Your task to perform on an android device: open app "Speedtest by Ookla" (install if not already installed), go to login, and select forgot password Image 0: 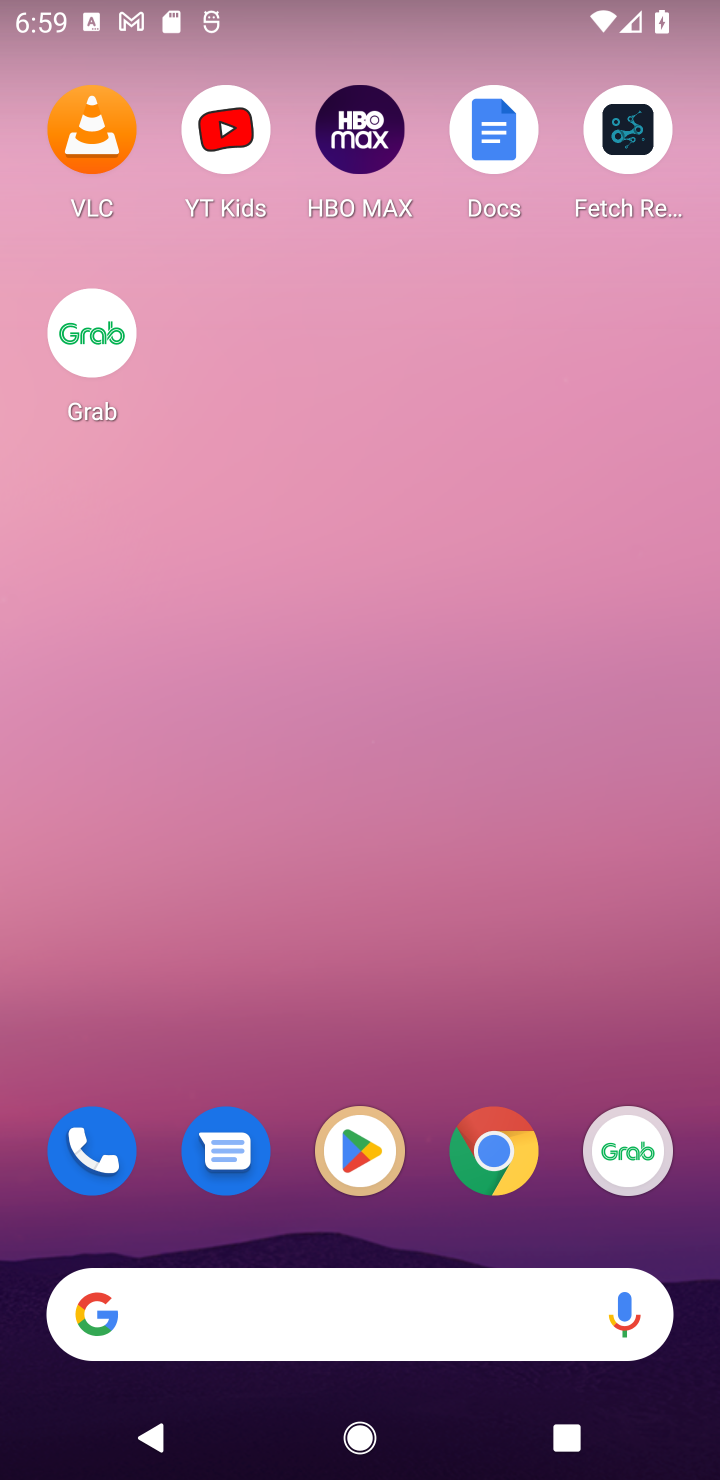
Step 0: press home button
Your task to perform on an android device: open app "Speedtest by Ookla" (install if not already installed), go to login, and select forgot password Image 1: 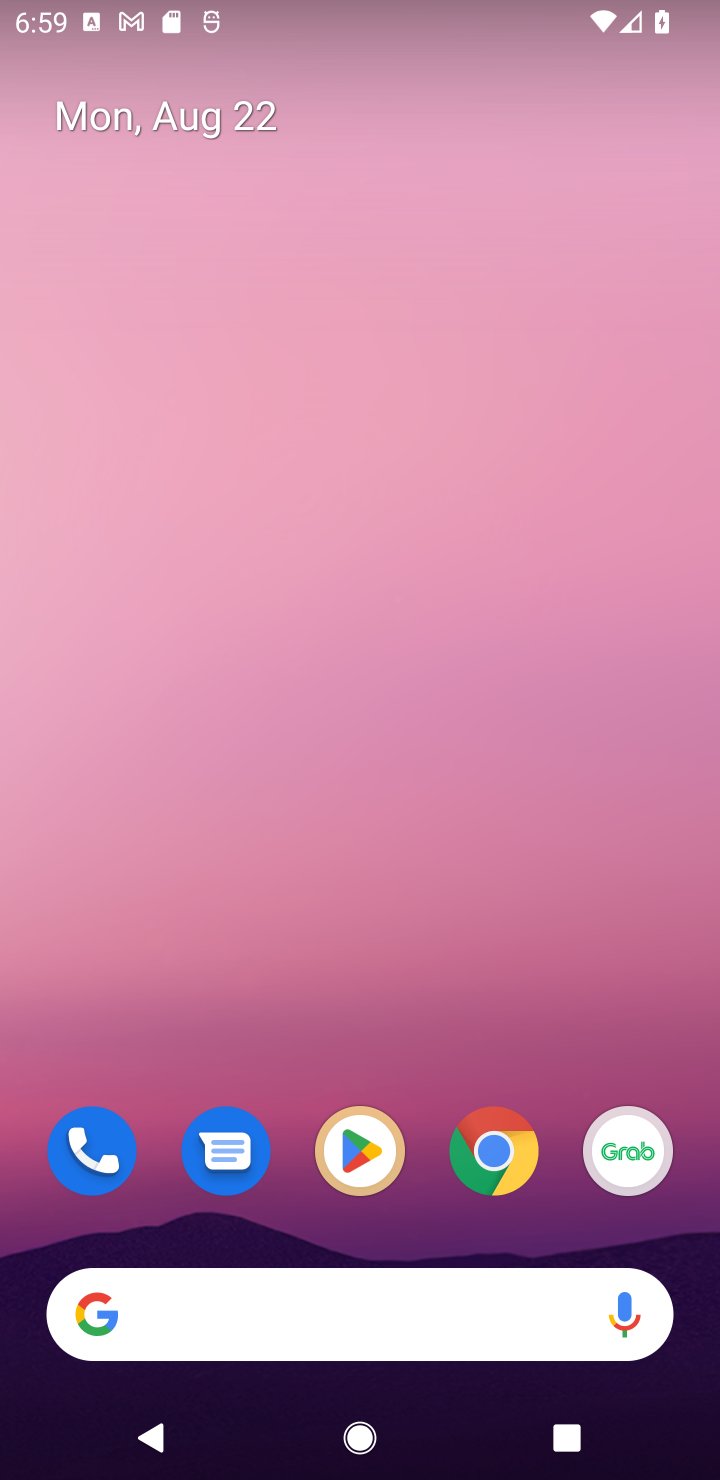
Step 1: click (377, 1145)
Your task to perform on an android device: open app "Speedtest by Ookla" (install if not already installed), go to login, and select forgot password Image 2: 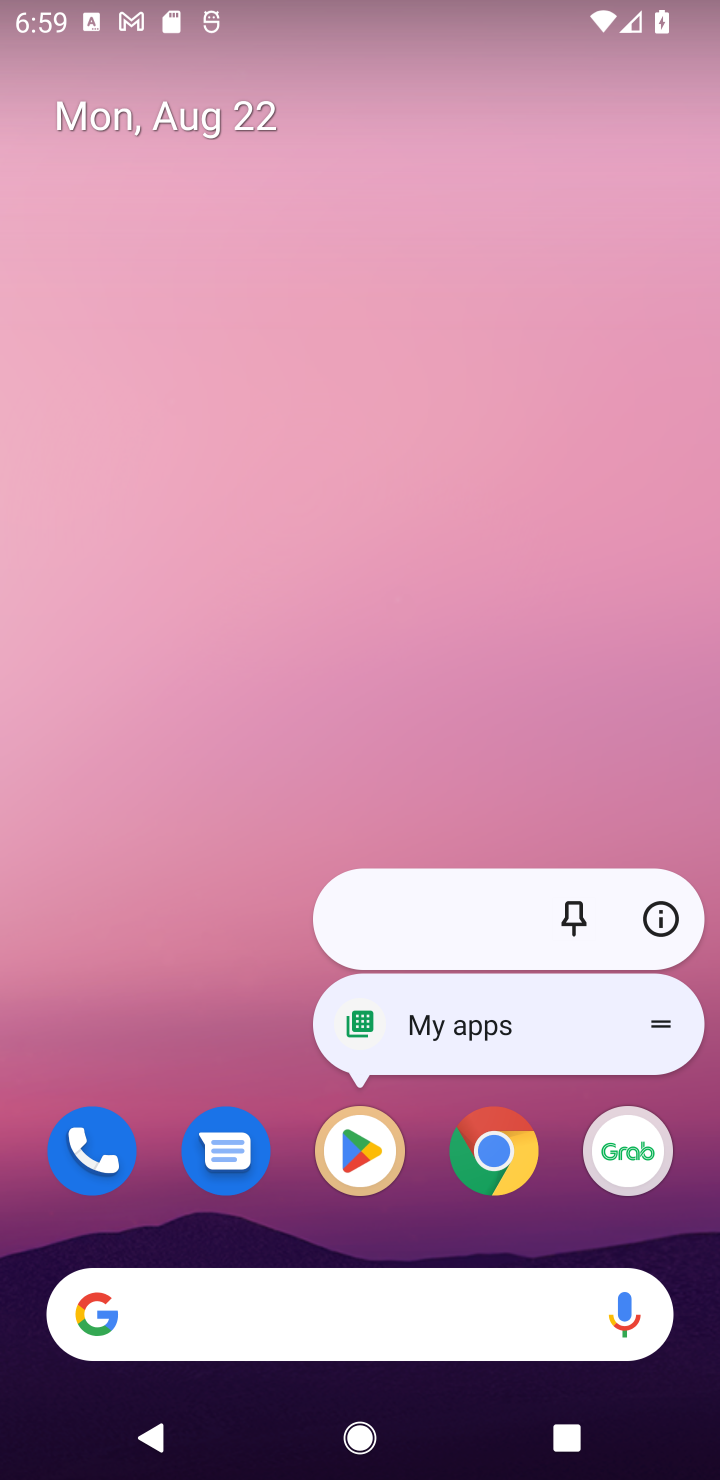
Step 2: click (358, 1152)
Your task to perform on an android device: open app "Speedtest by Ookla" (install if not already installed), go to login, and select forgot password Image 3: 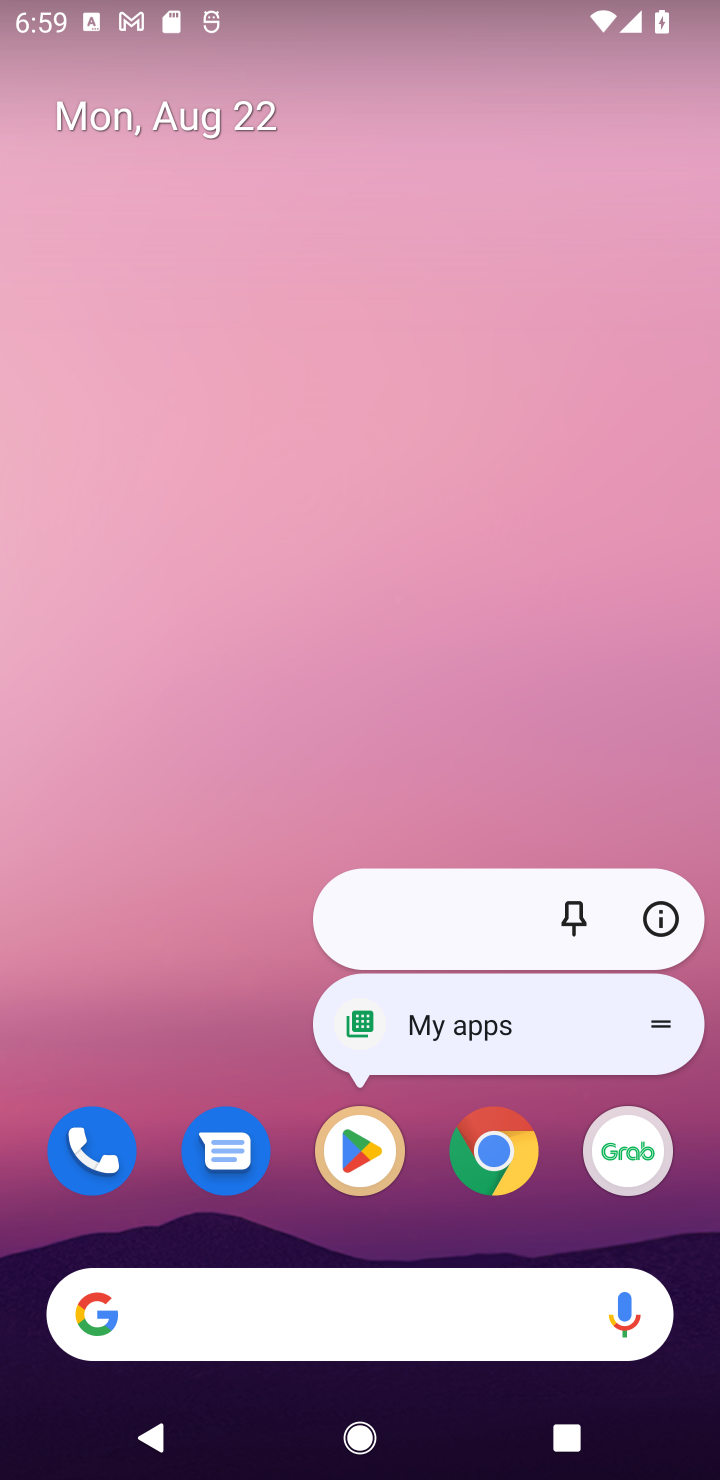
Step 3: click (339, 1154)
Your task to perform on an android device: open app "Speedtest by Ookla" (install if not already installed), go to login, and select forgot password Image 4: 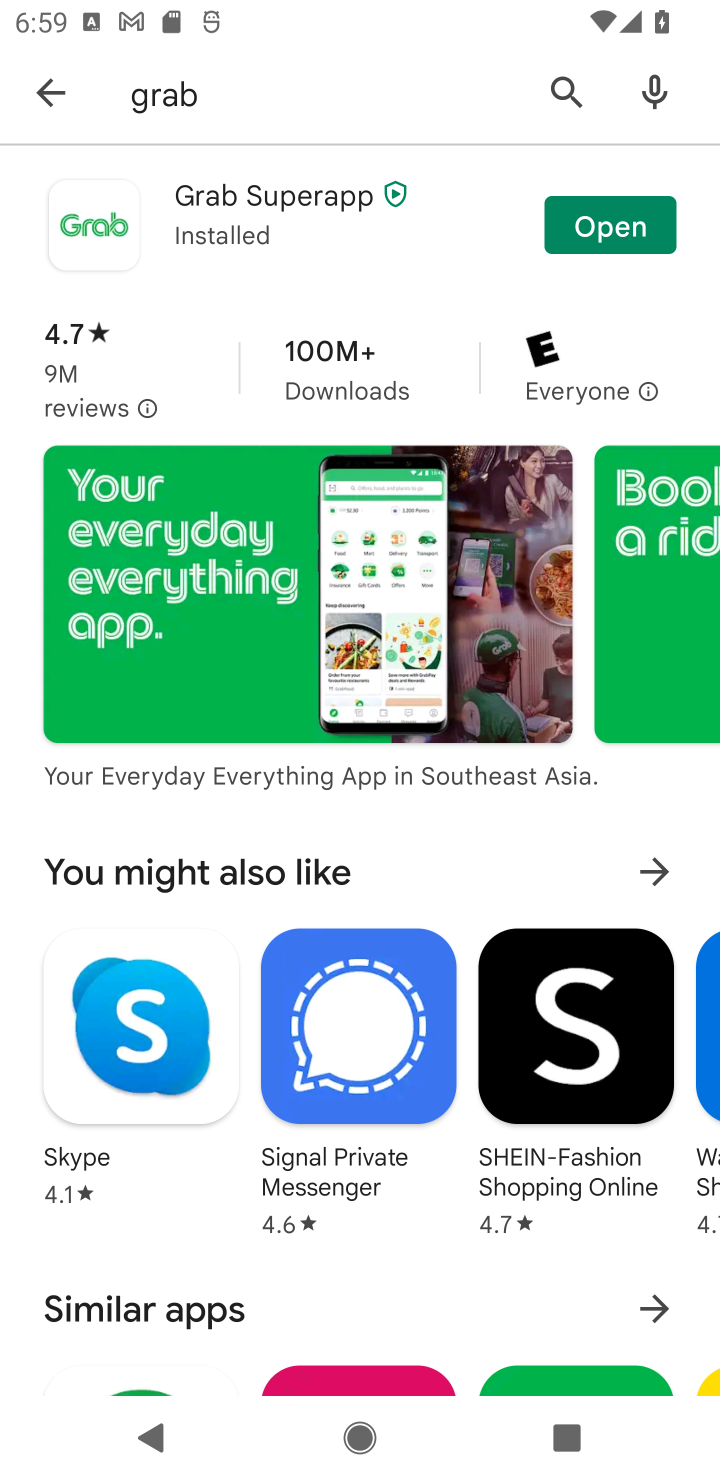
Step 4: click (565, 74)
Your task to perform on an android device: open app "Speedtest by Ookla" (install if not already installed), go to login, and select forgot password Image 5: 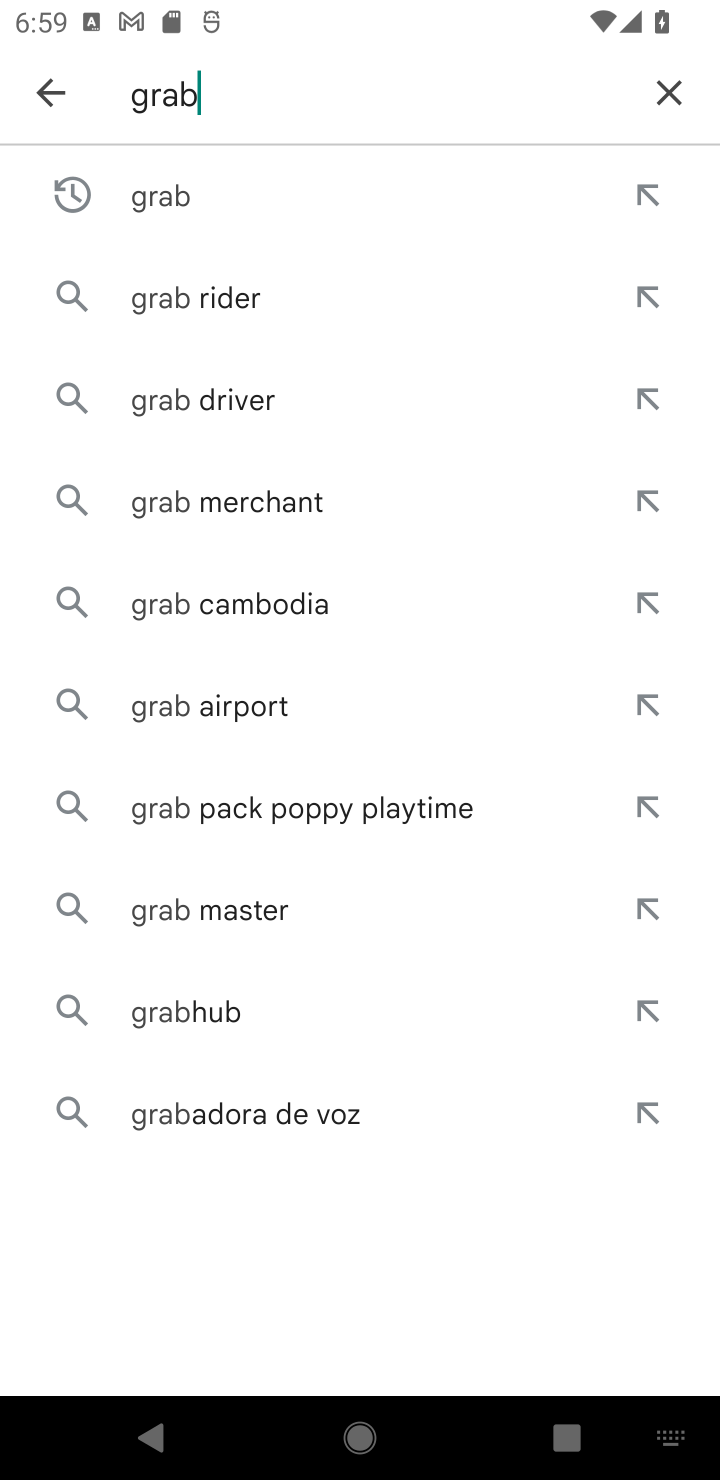
Step 5: click (671, 85)
Your task to perform on an android device: open app "Speedtest by Ookla" (install if not already installed), go to login, and select forgot password Image 6: 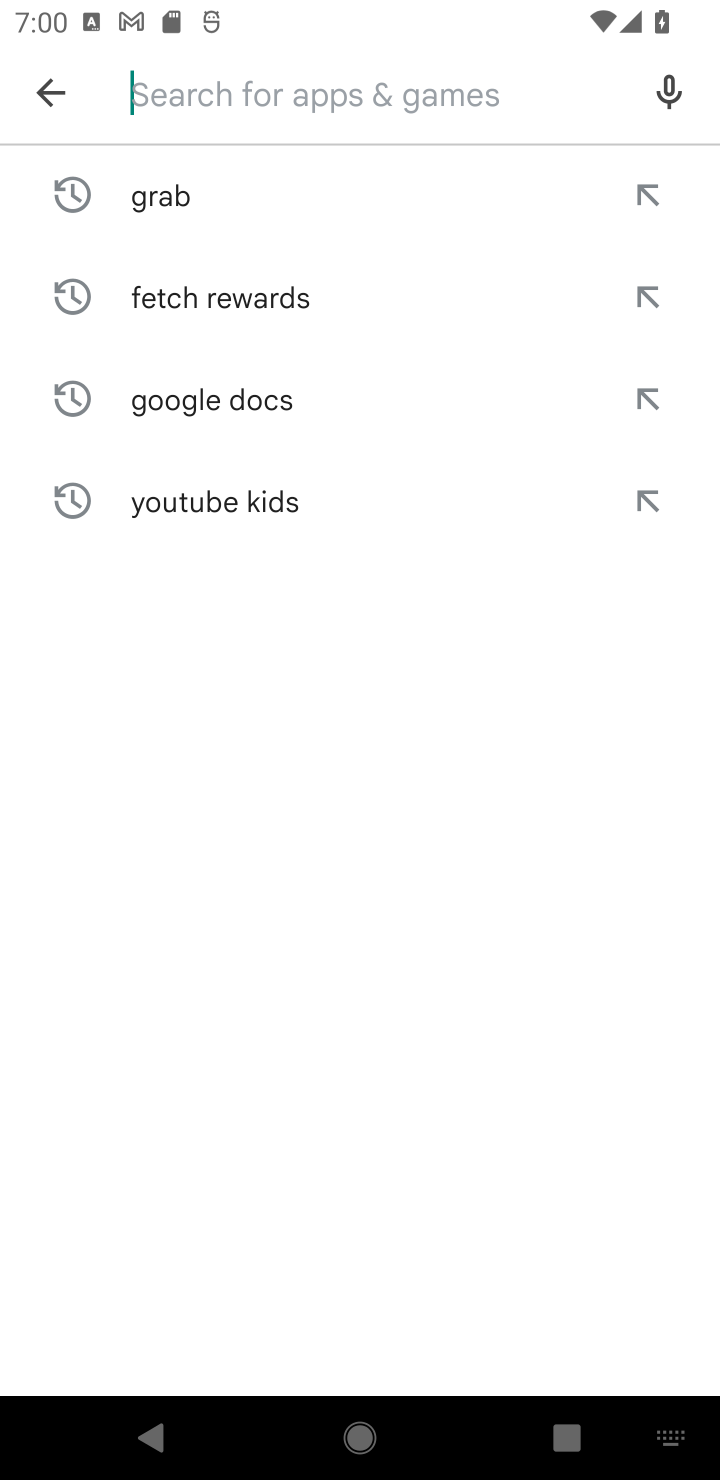
Step 6: type "Speedtest by Ookla"
Your task to perform on an android device: open app "Speedtest by Ookla" (install if not already installed), go to login, and select forgot password Image 7: 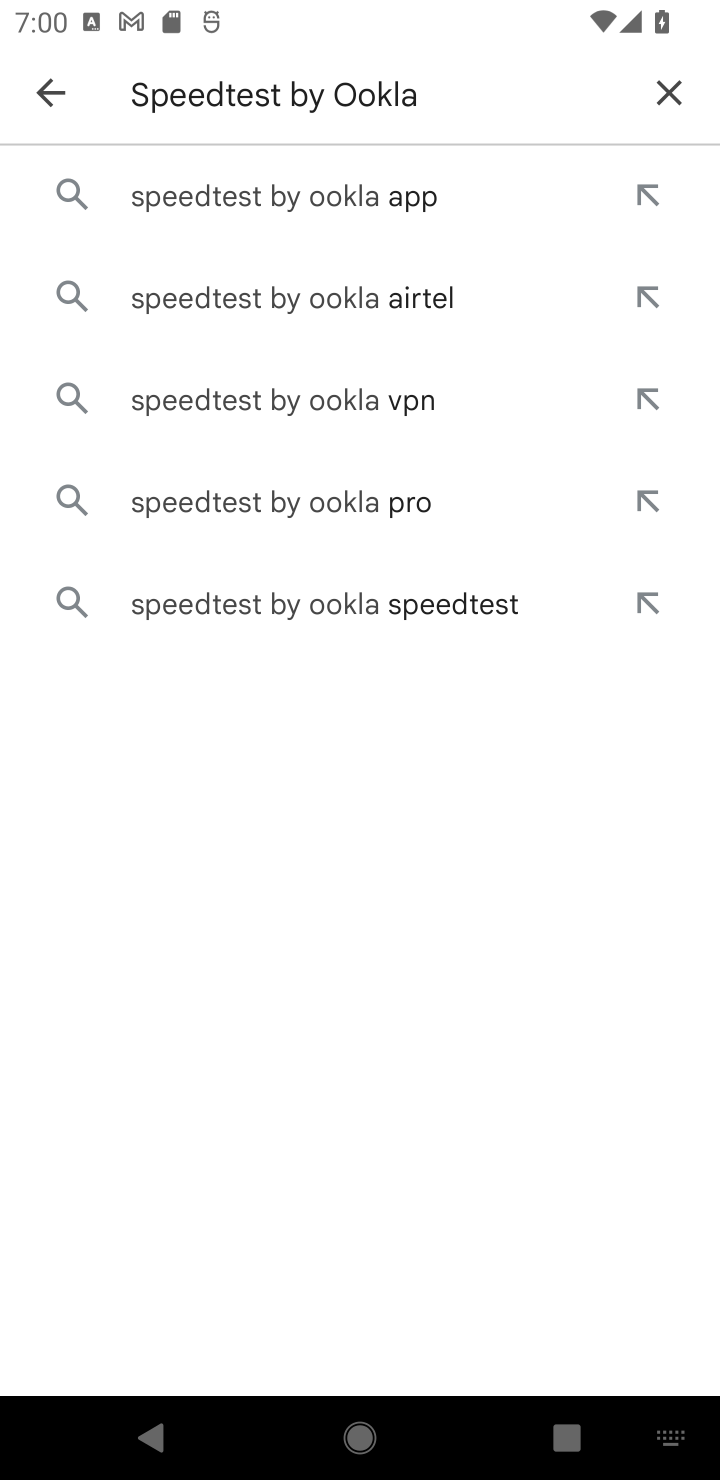
Step 7: click (373, 206)
Your task to perform on an android device: open app "Speedtest by Ookla" (install if not already installed), go to login, and select forgot password Image 8: 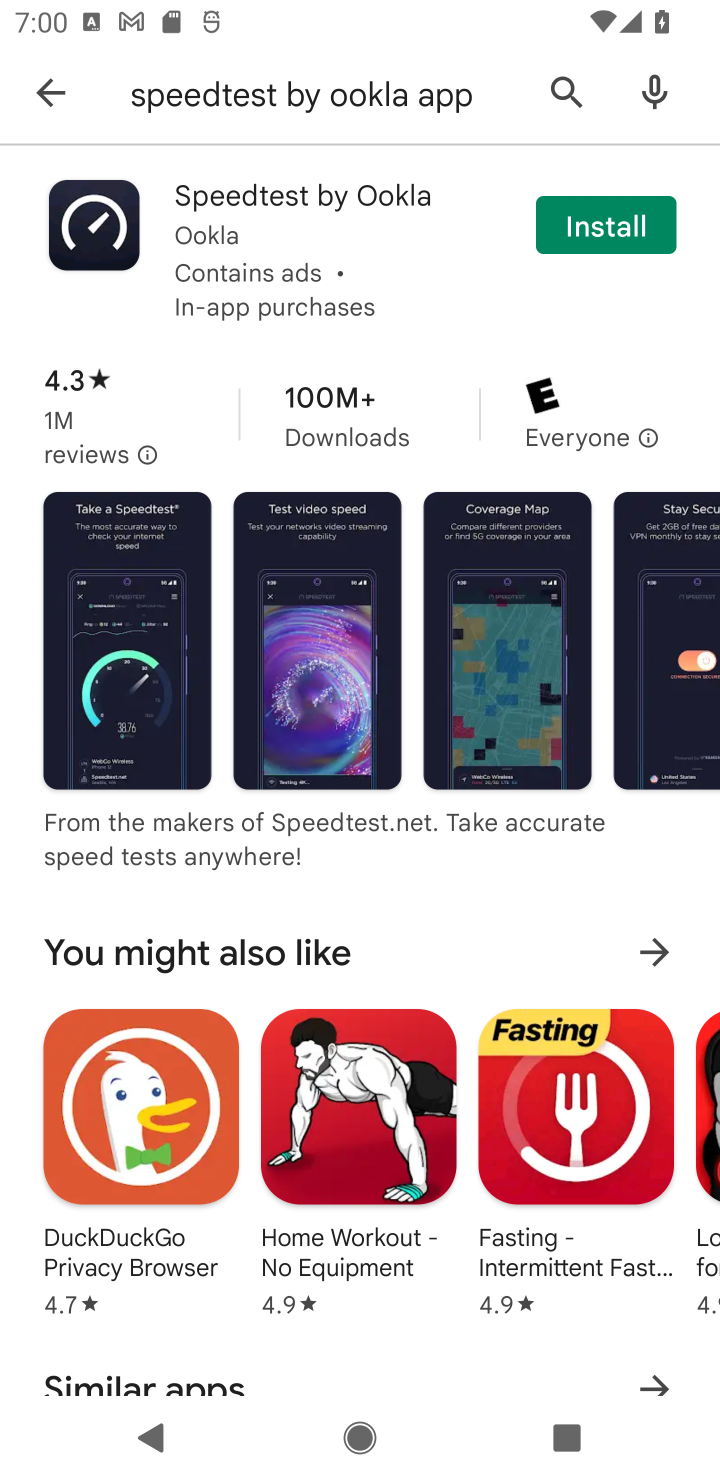
Step 8: click (650, 242)
Your task to perform on an android device: open app "Speedtest by Ookla" (install if not already installed), go to login, and select forgot password Image 9: 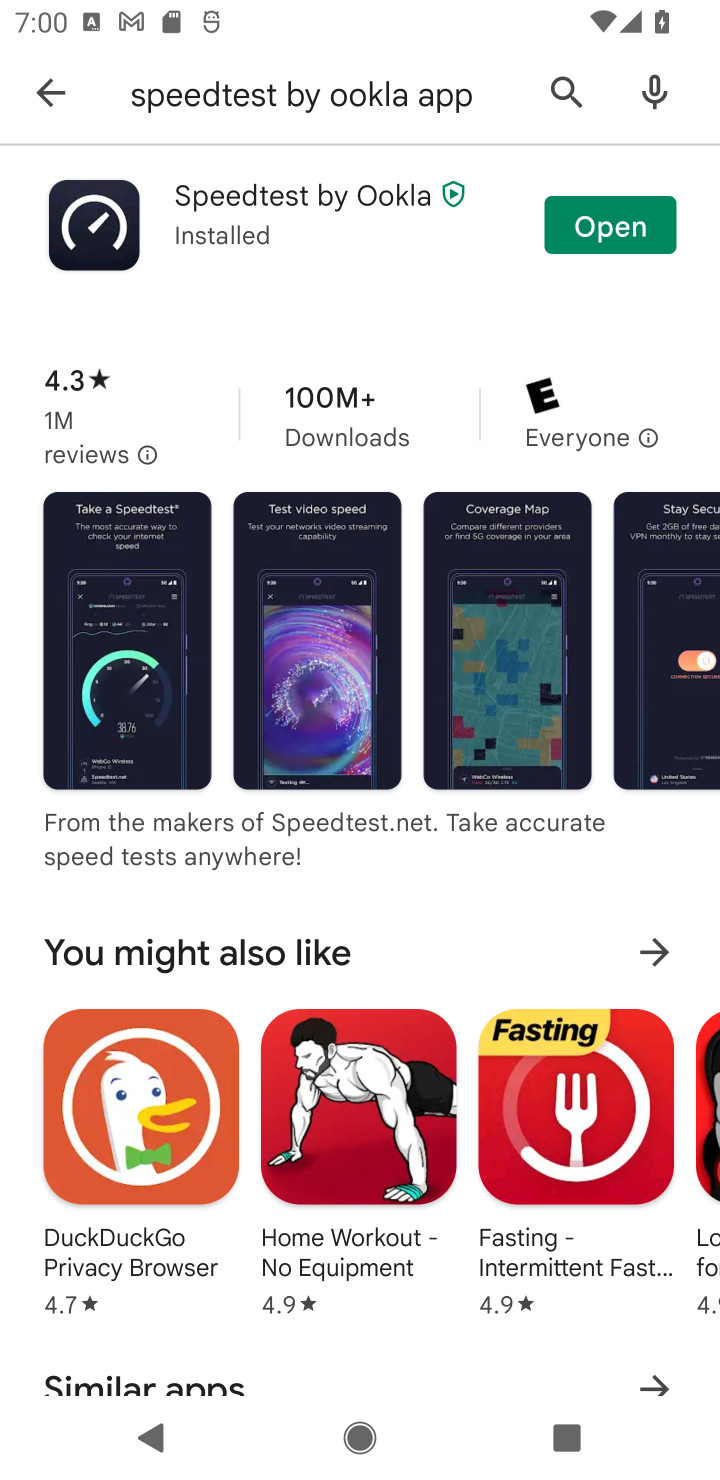
Step 9: click (600, 236)
Your task to perform on an android device: open app "Speedtest by Ookla" (install if not already installed), go to login, and select forgot password Image 10: 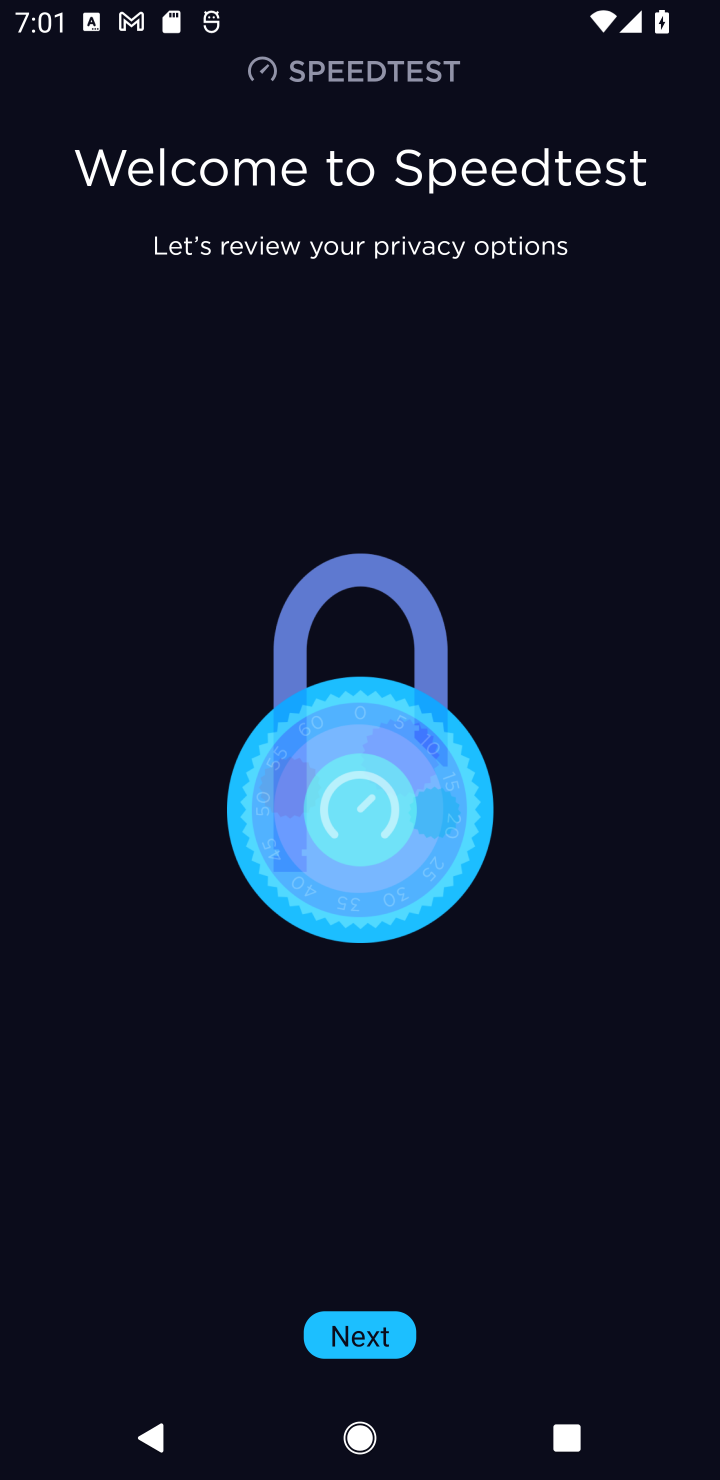
Step 10: click (383, 1334)
Your task to perform on an android device: open app "Speedtest by Ookla" (install if not already installed), go to login, and select forgot password Image 11: 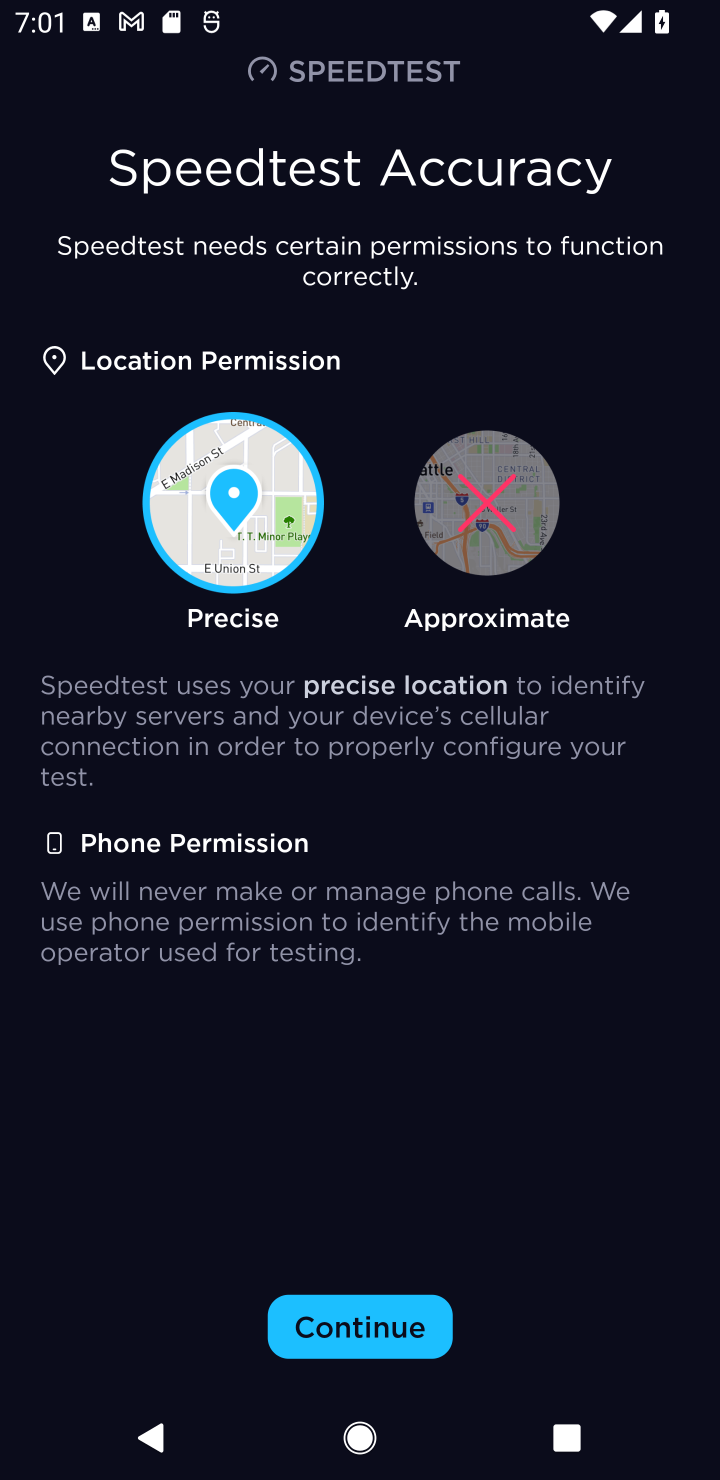
Step 11: click (380, 1328)
Your task to perform on an android device: open app "Speedtest by Ookla" (install if not already installed), go to login, and select forgot password Image 12: 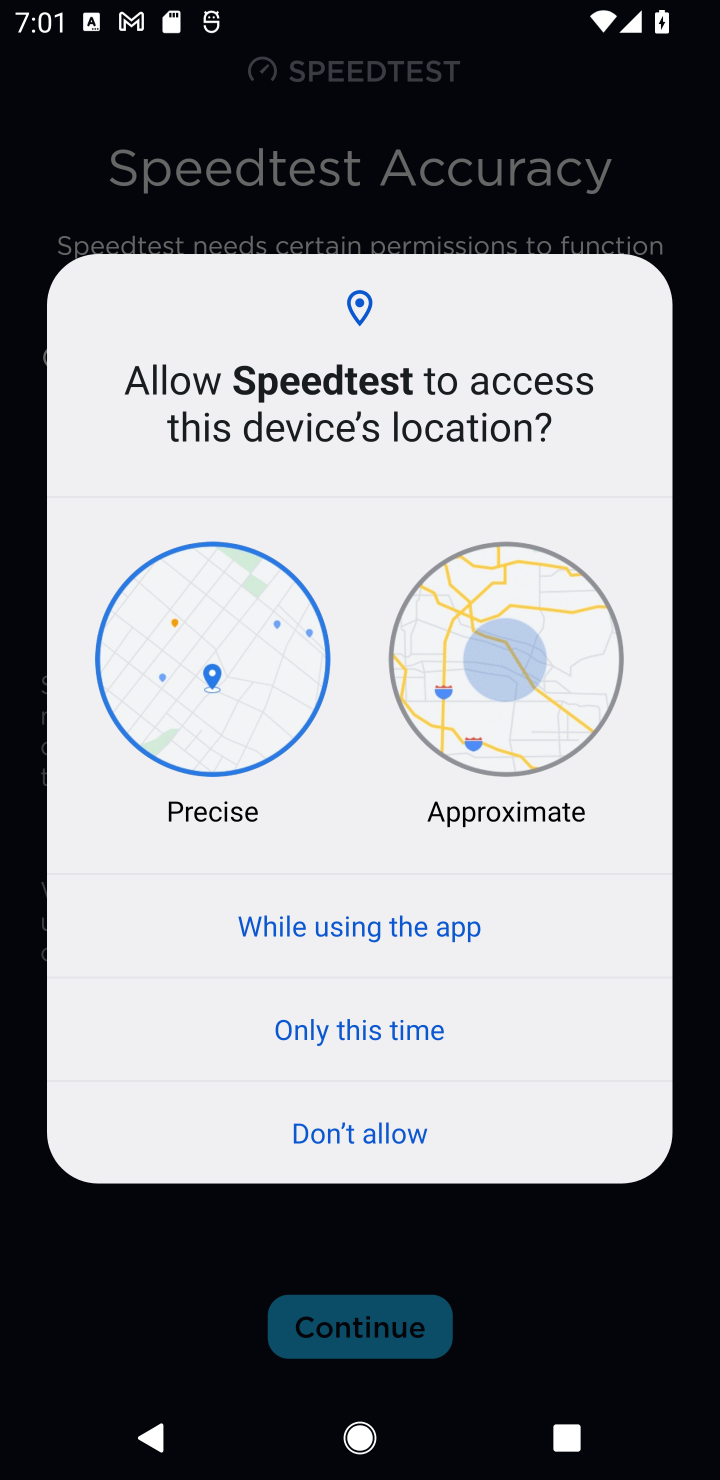
Step 12: click (451, 1049)
Your task to perform on an android device: open app "Speedtest by Ookla" (install if not already installed), go to login, and select forgot password Image 13: 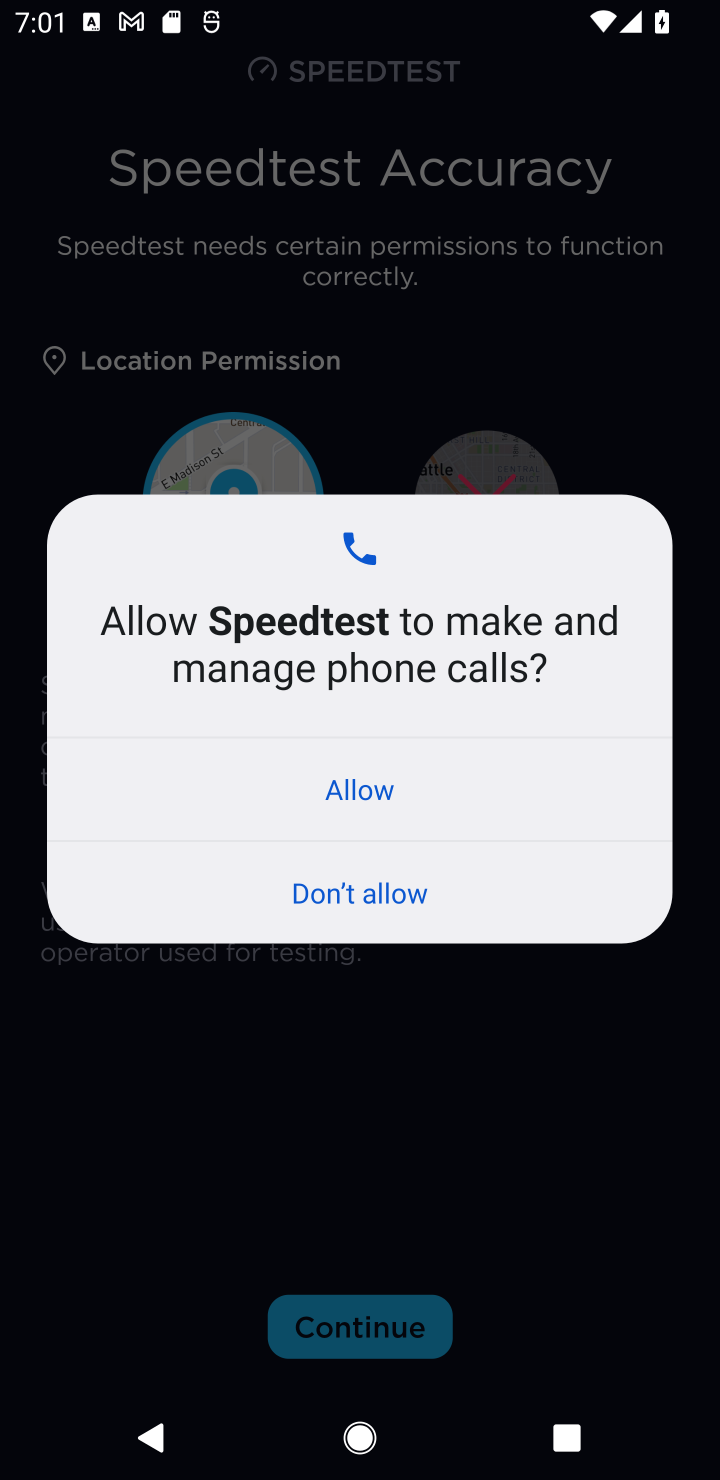
Step 13: click (385, 792)
Your task to perform on an android device: open app "Speedtest by Ookla" (install if not already installed), go to login, and select forgot password Image 14: 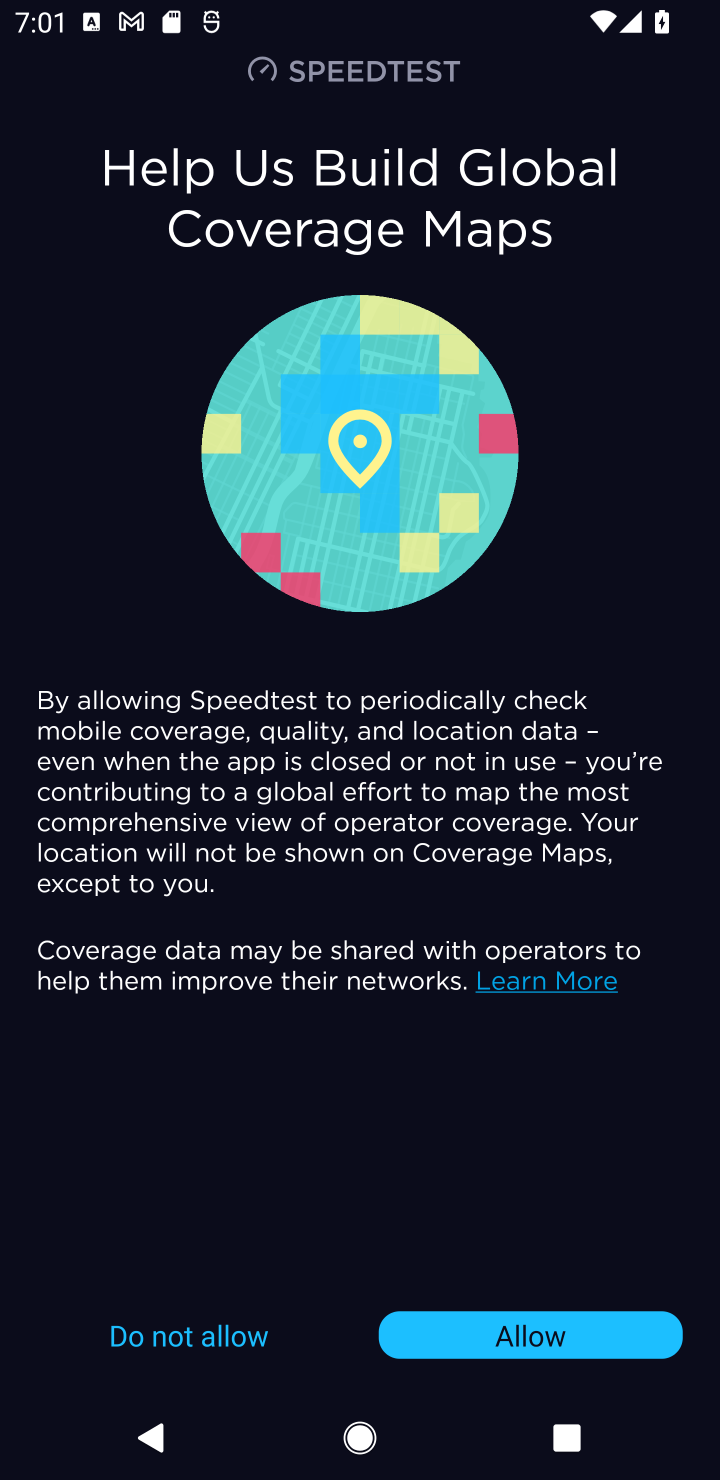
Step 14: task complete